Your task to perform on an android device: turn pop-ups off in chrome Image 0: 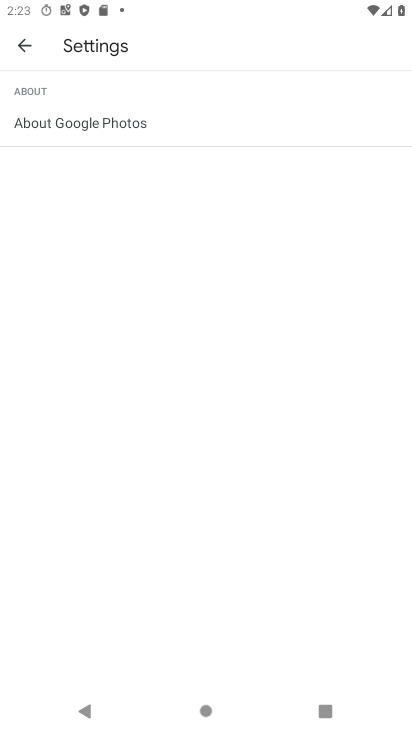
Step 0: press home button
Your task to perform on an android device: turn pop-ups off in chrome Image 1: 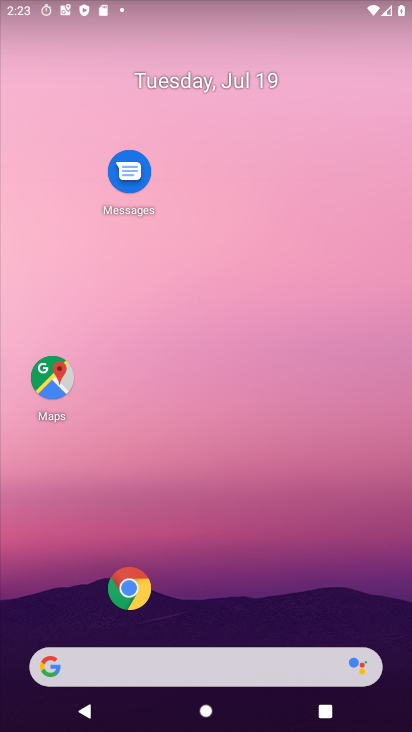
Step 1: click (116, 587)
Your task to perform on an android device: turn pop-ups off in chrome Image 2: 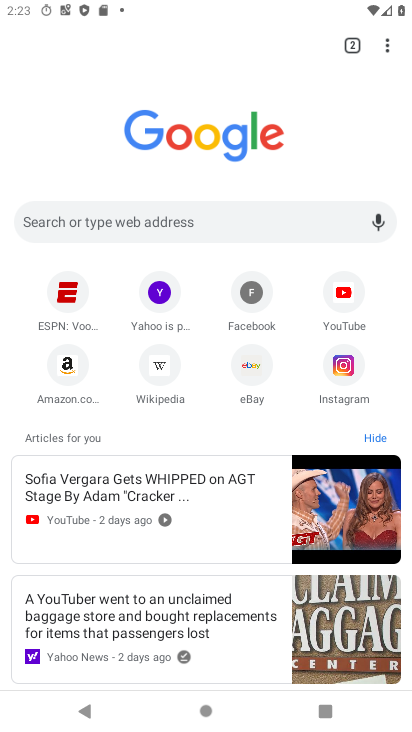
Step 2: click (377, 43)
Your task to perform on an android device: turn pop-ups off in chrome Image 3: 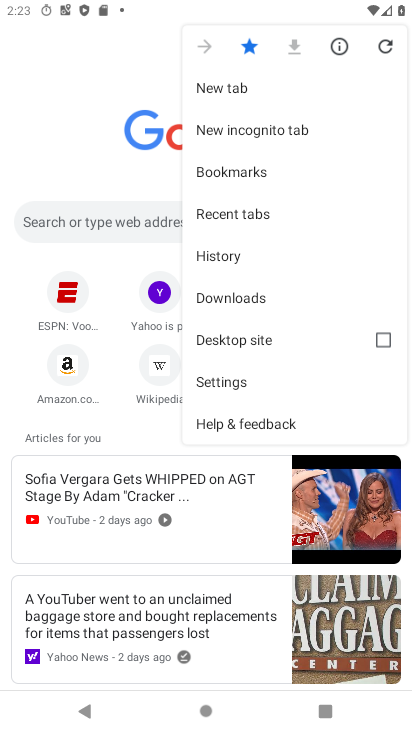
Step 3: click (234, 387)
Your task to perform on an android device: turn pop-ups off in chrome Image 4: 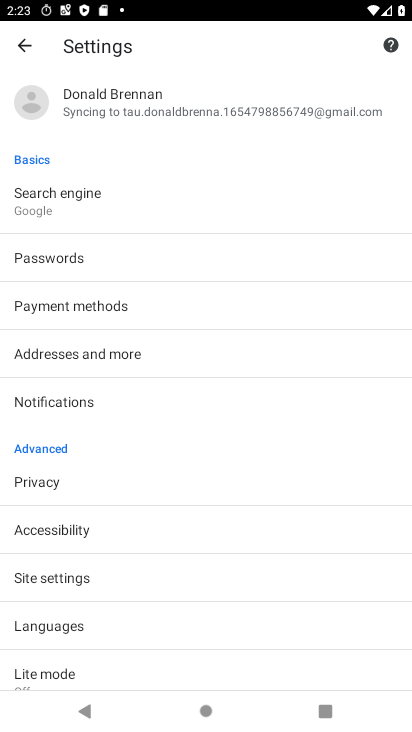
Step 4: click (21, 569)
Your task to perform on an android device: turn pop-ups off in chrome Image 5: 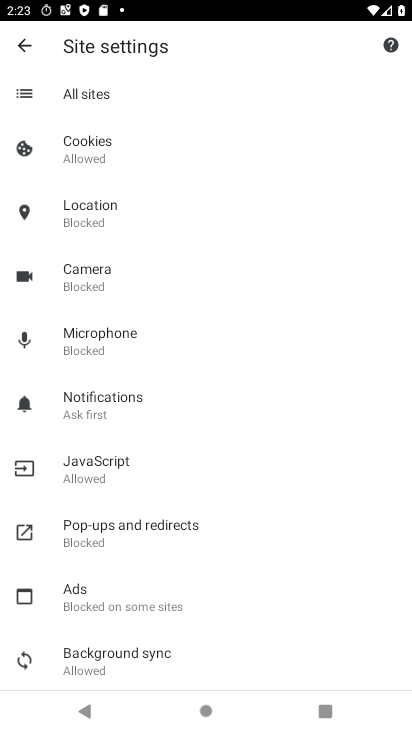
Step 5: click (95, 510)
Your task to perform on an android device: turn pop-ups off in chrome Image 6: 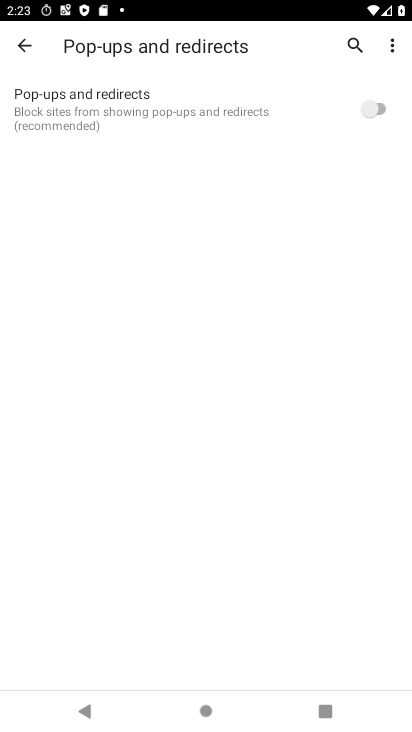
Step 6: click (368, 112)
Your task to perform on an android device: turn pop-ups off in chrome Image 7: 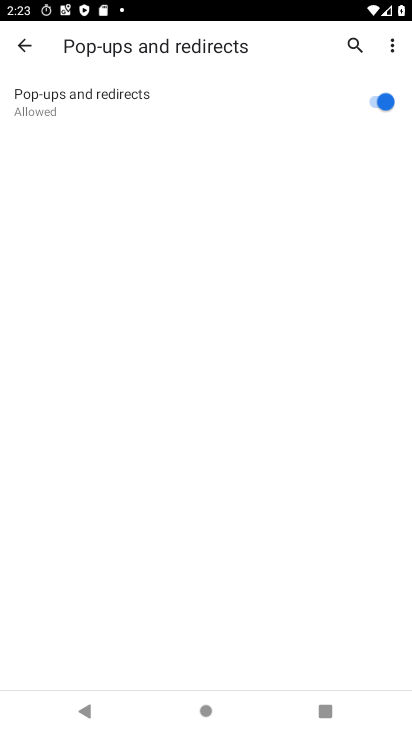
Step 7: task complete